Your task to perform on an android device: Open the phone app and click the voicemail tab. Image 0: 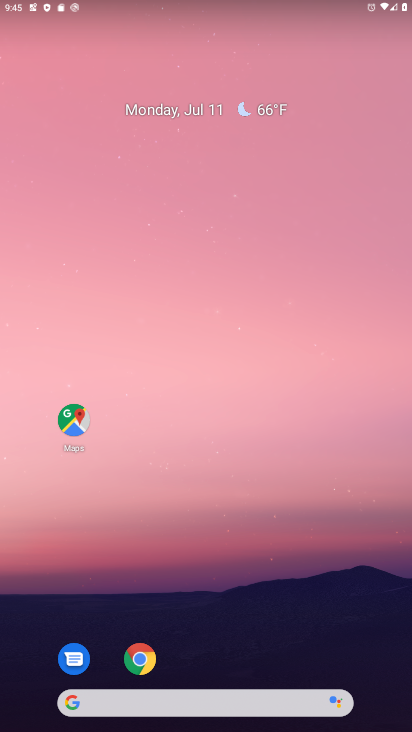
Step 0: drag from (366, 642) to (348, 149)
Your task to perform on an android device: Open the phone app and click the voicemail tab. Image 1: 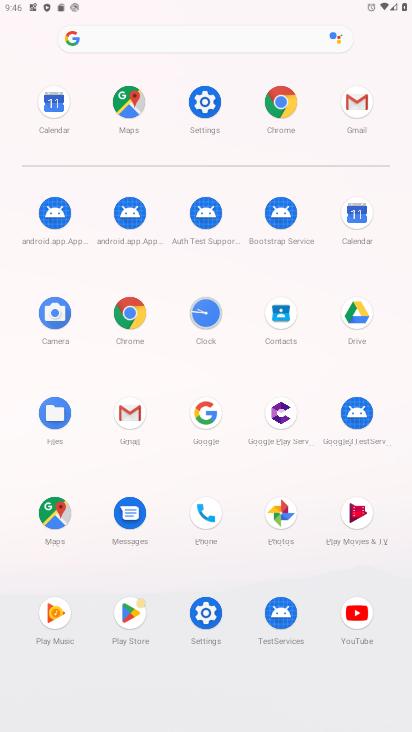
Step 1: click (199, 516)
Your task to perform on an android device: Open the phone app and click the voicemail tab. Image 2: 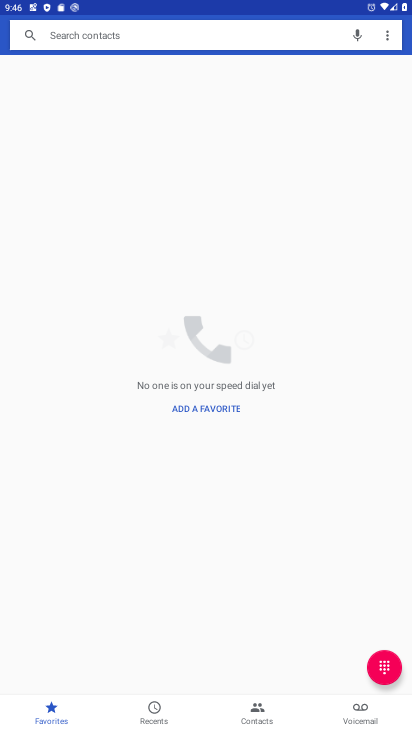
Step 2: click (353, 715)
Your task to perform on an android device: Open the phone app and click the voicemail tab. Image 3: 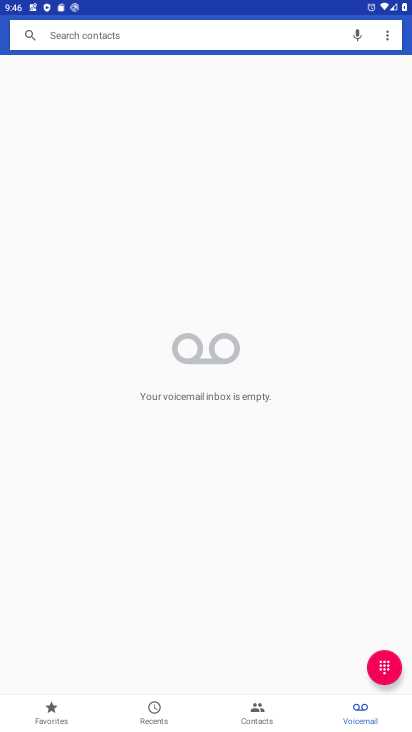
Step 3: task complete